Your task to perform on an android device: Go to Amazon Image 0: 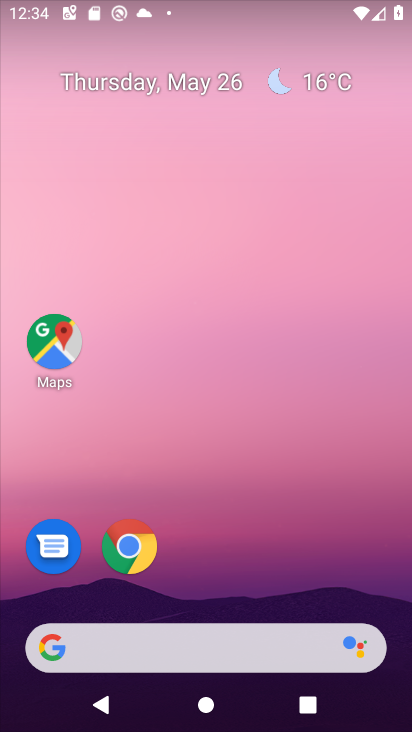
Step 0: click (133, 549)
Your task to perform on an android device: Go to Amazon Image 1: 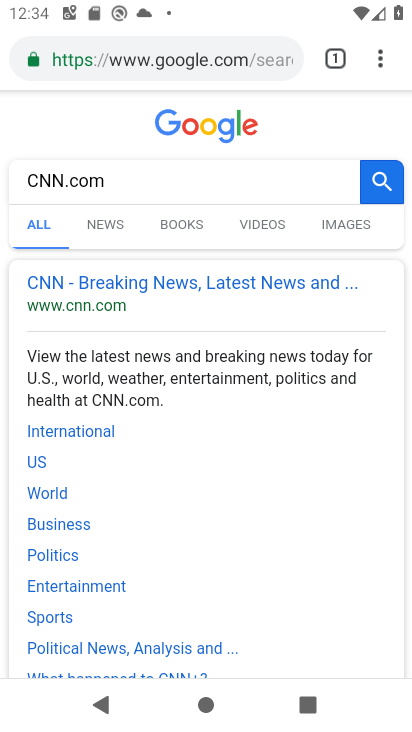
Step 1: click (124, 543)
Your task to perform on an android device: Go to Amazon Image 2: 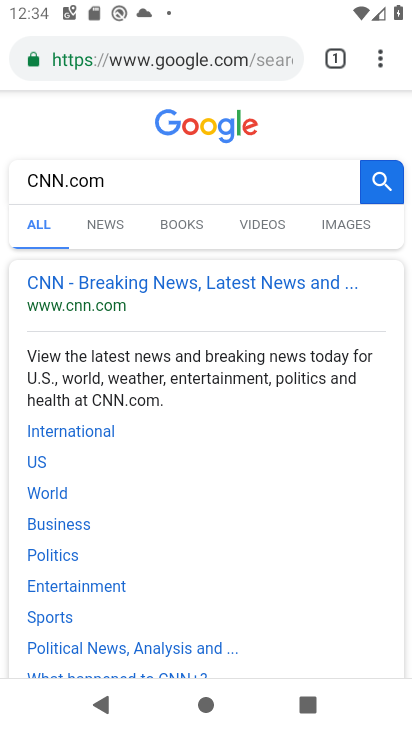
Step 2: click (127, 52)
Your task to perform on an android device: Go to Amazon Image 3: 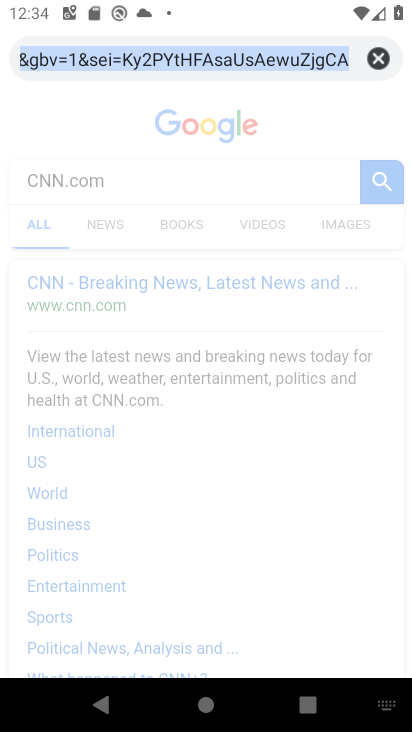
Step 3: type "Amazon"
Your task to perform on an android device: Go to Amazon Image 4: 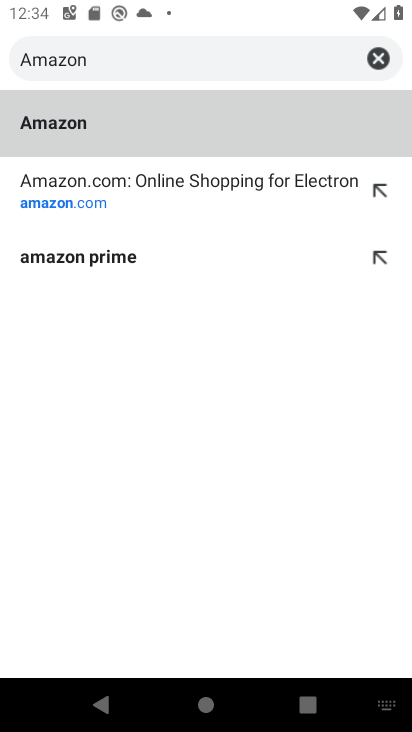
Step 4: click (85, 147)
Your task to perform on an android device: Go to Amazon Image 5: 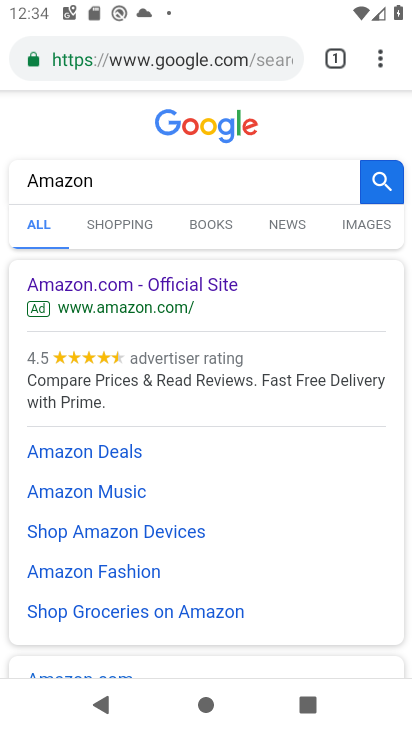
Step 5: task complete